Your task to perform on an android device: Show me the alarms in the clock app Image 0: 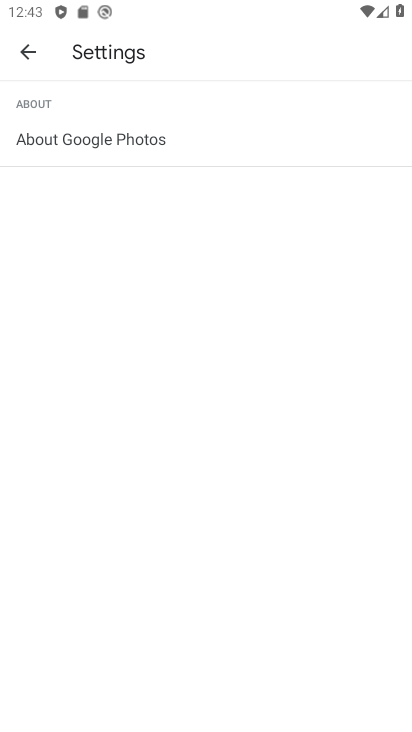
Step 0: press home button
Your task to perform on an android device: Show me the alarms in the clock app Image 1: 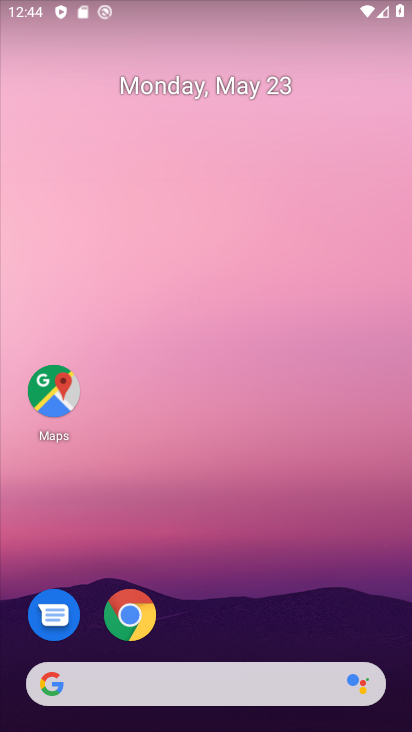
Step 1: drag from (205, 726) to (200, 72)
Your task to perform on an android device: Show me the alarms in the clock app Image 2: 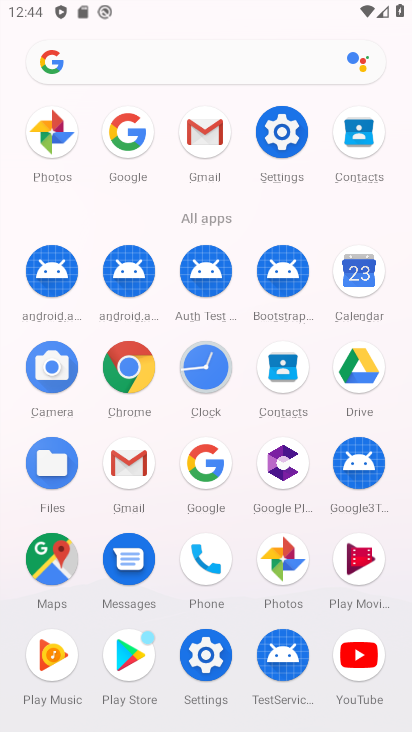
Step 2: click (201, 365)
Your task to perform on an android device: Show me the alarms in the clock app Image 3: 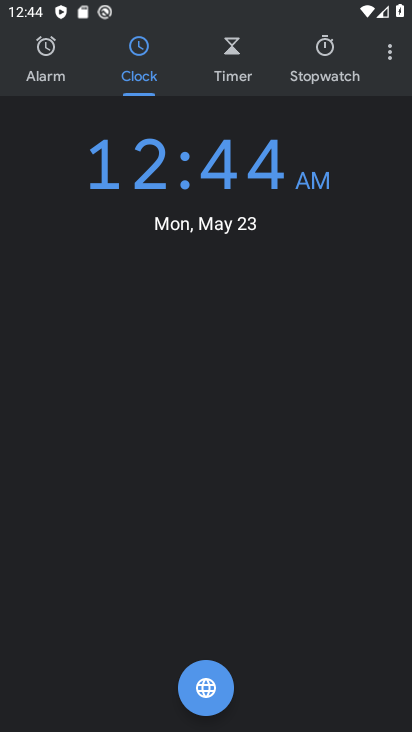
Step 3: click (45, 54)
Your task to perform on an android device: Show me the alarms in the clock app Image 4: 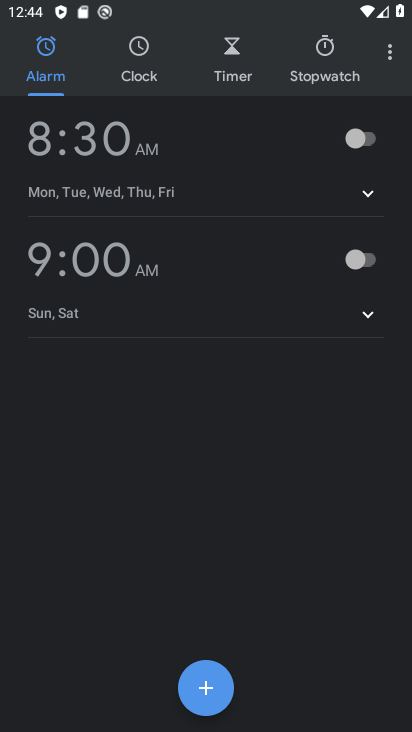
Step 4: task complete